Your task to perform on an android device: Open privacy settings Image 0: 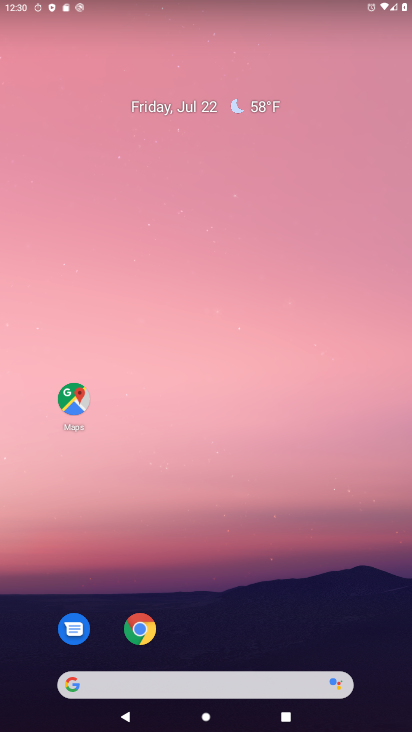
Step 0: drag from (350, 602) to (385, 187)
Your task to perform on an android device: Open privacy settings Image 1: 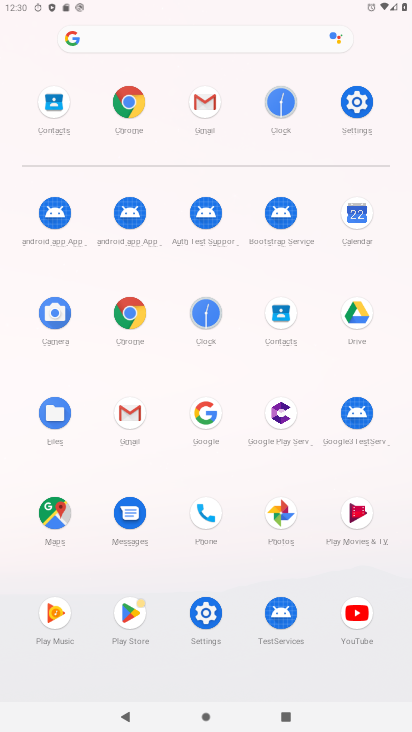
Step 1: click (357, 117)
Your task to perform on an android device: Open privacy settings Image 2: 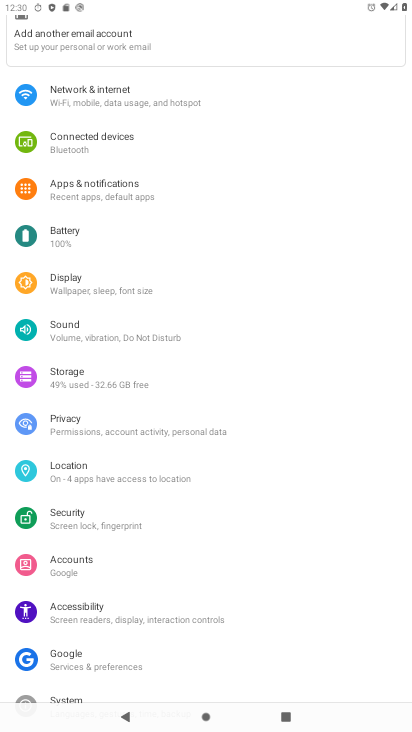
Step 2: drag from (341, 368) to (343, 324)
Your task to perform on an android device: Open privacy settings Image 3: 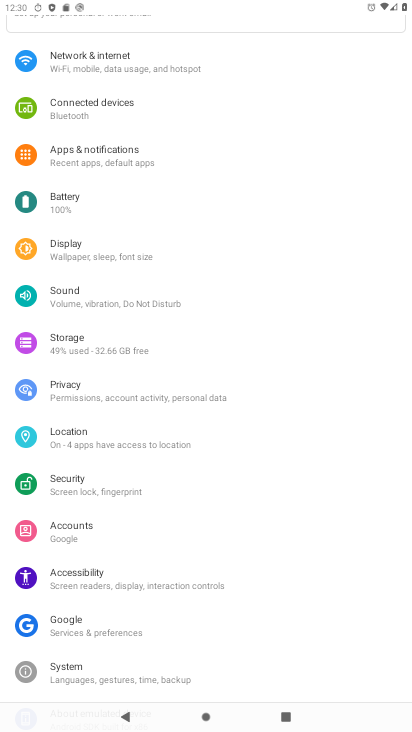
Step 3: drag from (342, 388) to (346, 330)
Your task to perform on an android device: Open privacy settings Image 4: 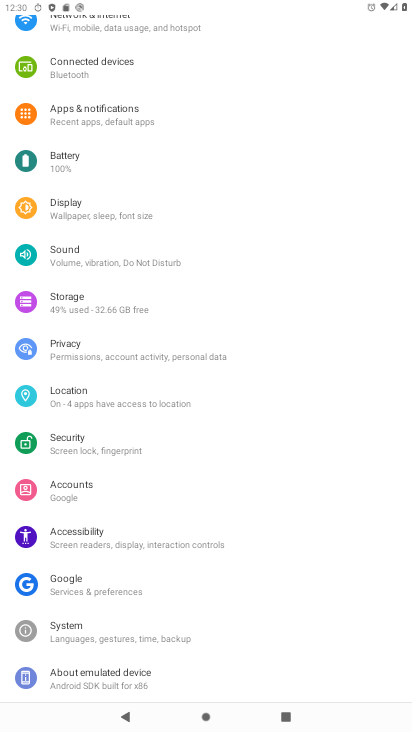
Step 4: drag from (341, 428) to (343, 358)
Your task to perform on an android device: Open privacy settings Image 5: 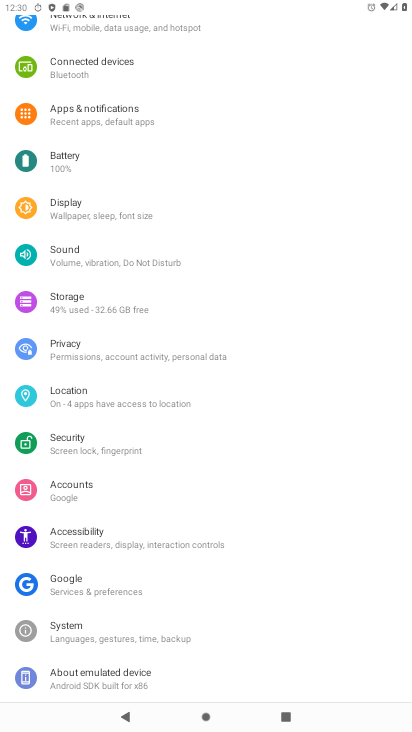
Step 5: drag from (336, 281) to (356, 420)
Your task to perform on an android device: Open privacy settings Image 6: 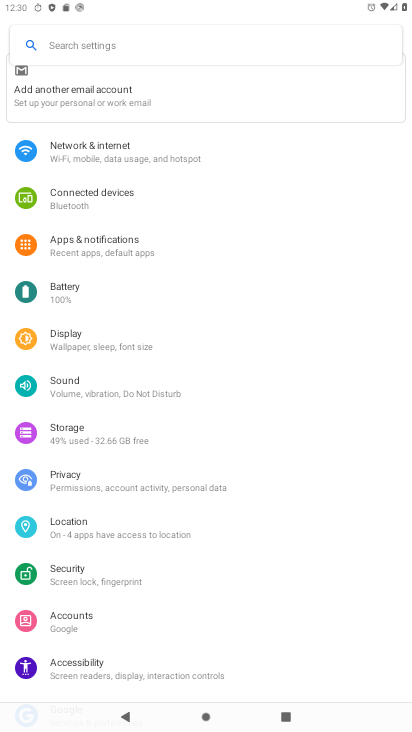
Step 6: drag from (337, 276) to (349, 394)
Your task to perform on an android device: Open privacy settings Image 7: 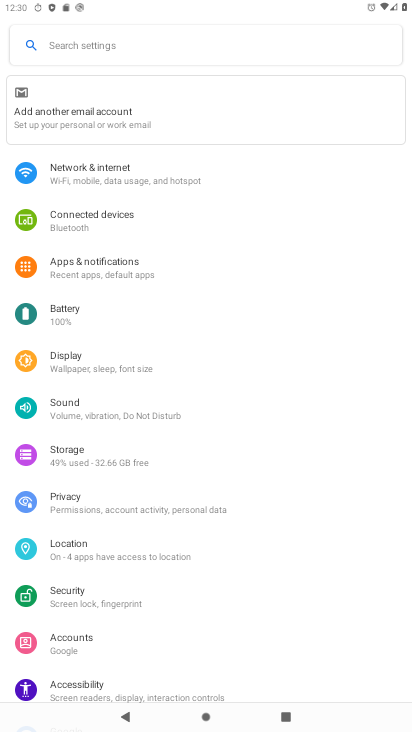
Step 7: click (289, 491)
Your task to perform on an android device: Open privacy settings Image 8: 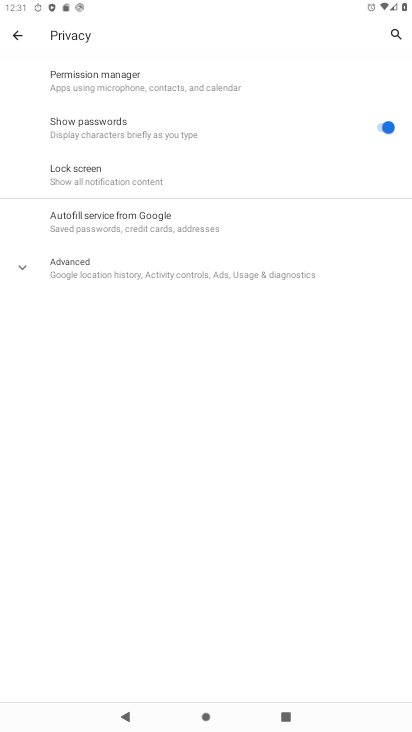
Step 8: click (241, 270)
Your task to perform on an android device: Open privacy settings Image 9: 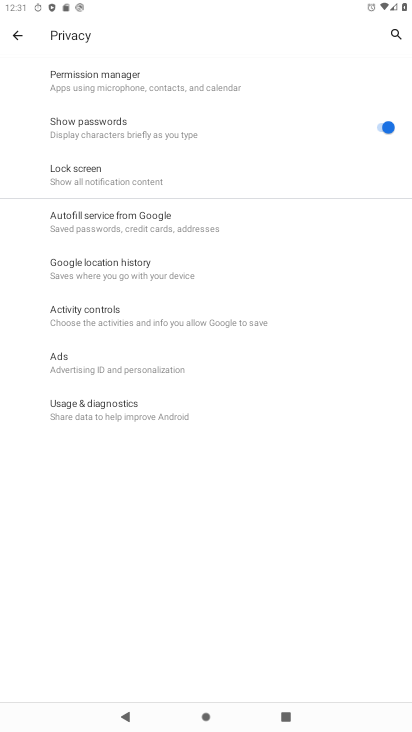
Step 9: task complete